Your task to perform on an android device: set default search engine in the chrome app Image 0: 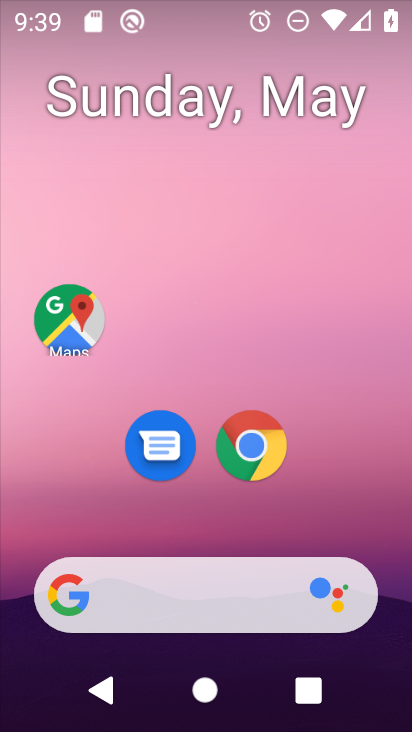
Step 0: drag from (270, 530) to (255, 52)
Your task to perform on an android device: set default search engine in the chrome app Image 1: 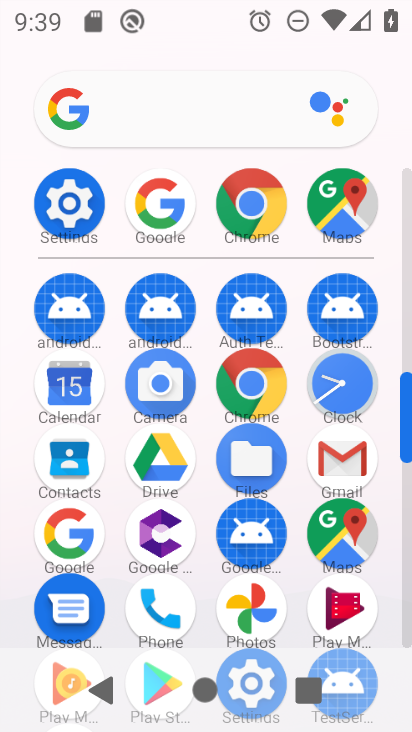
Step 1: click (239, 216)
Your task to perform on an android device: set default search engine in the chrome app Image 2: 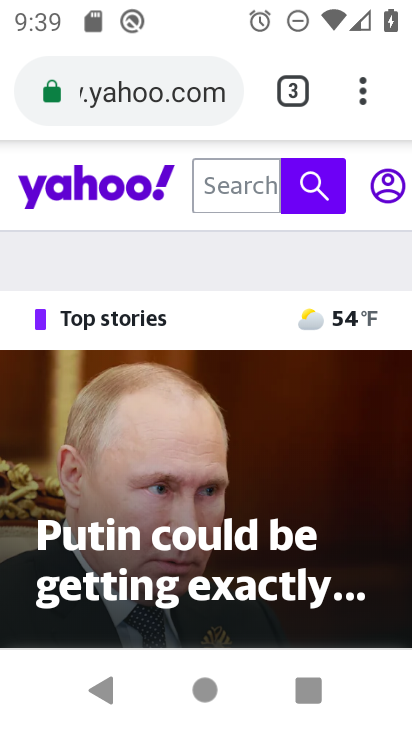
Step 2: click (362, 108)
Your task to perform on an android device: set default search engine in the chrome app Image 3: 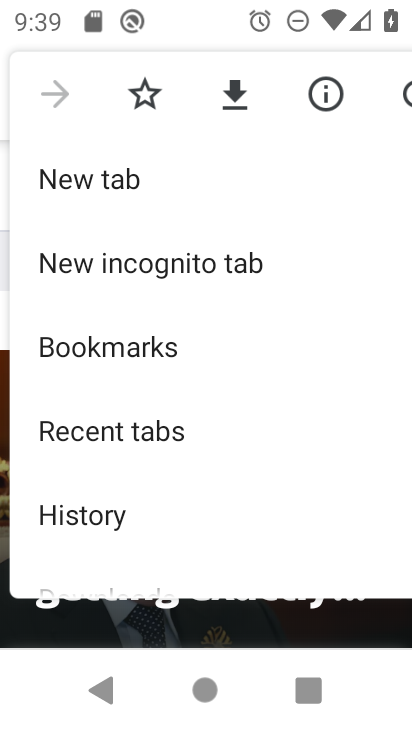
Step 3: drag from (273, 510) to (279, 273)
Your task to perform on an android device: set default search engine in the chrome app Image 4: 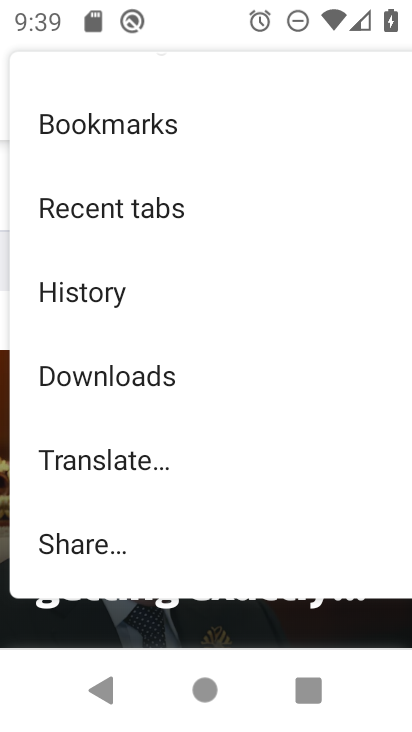
Step 4: drag from (189, 510) to (216, 329)
Your task to perform on an android device: set default search engine in the chrome app Image 5: 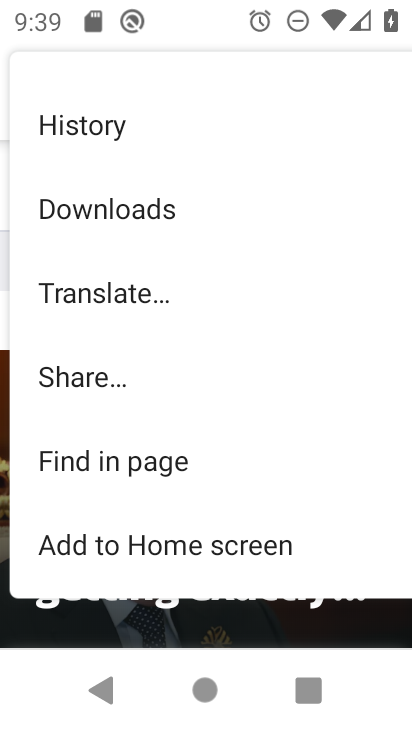
Step 5: drag from (183, 527) to (219, 309)
Your task to perform on an android device: set default search engine in the chrome app Image 6: 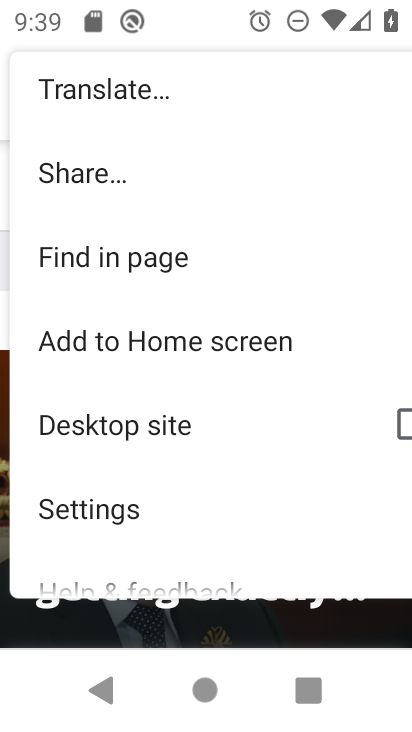
Step 6: click (160, 516)
Your task to perform on an android device: set default search engine in the chrome app Image 7: 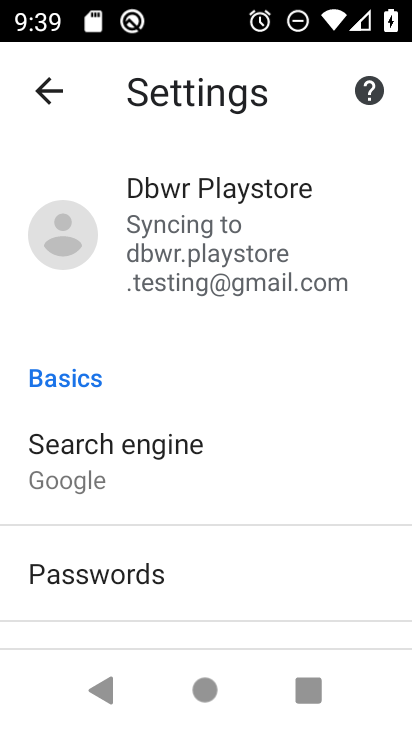
Step 7: click (109, 460)
Your task to perform on an android device: set default search engine in the chrome app Image 8: 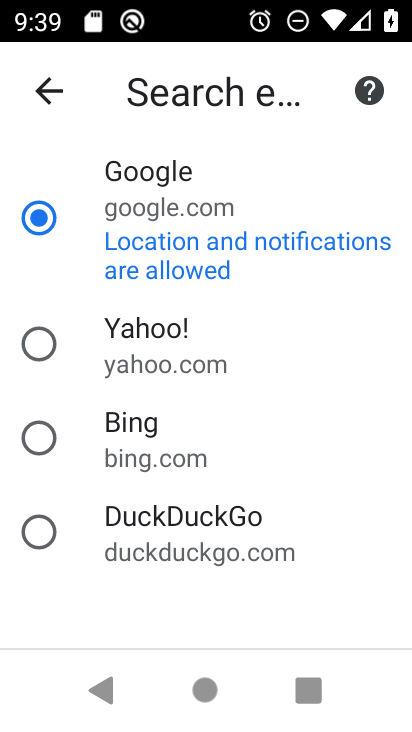
Step 8: task complete